Your task to perform on an android device: Open settings Image 0: 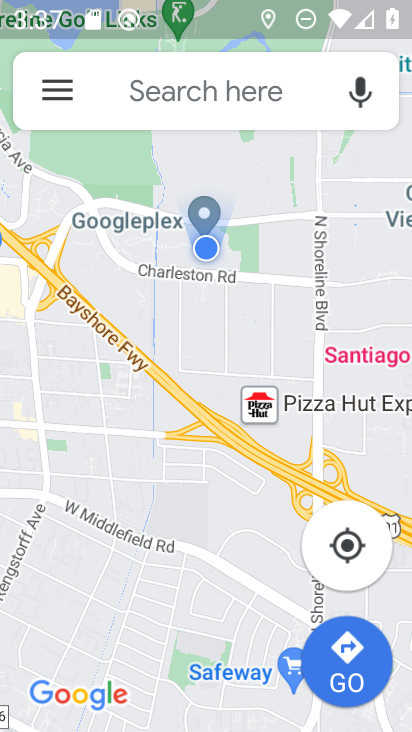
Step 0: press home button
Your task to perform on an android device: Open settings Image 1: 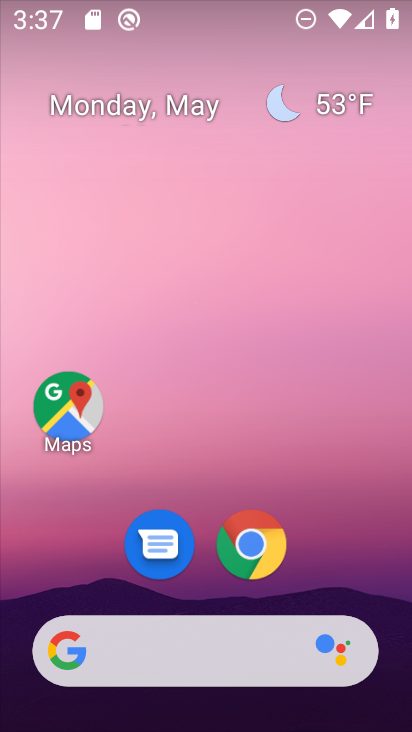
Step 1: drag from (113, 730) to (55, 49)
Your task to perform on an android device: Open settings Image 2: 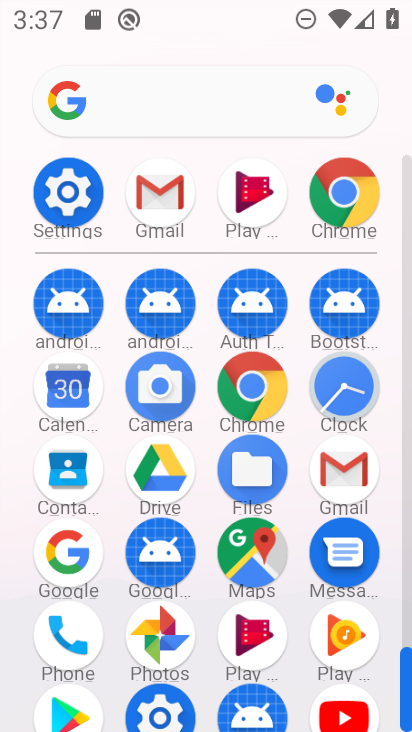
Step 2: click (57, 201)
Your task to perform on an android device: Open settings Image 3: 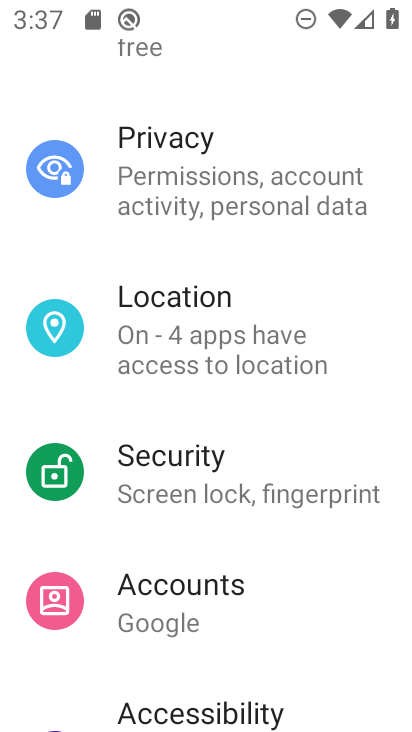
Step 3: task complete